Your task to perform on an android device: open chrome and create a bookmark for the current page Image 0: 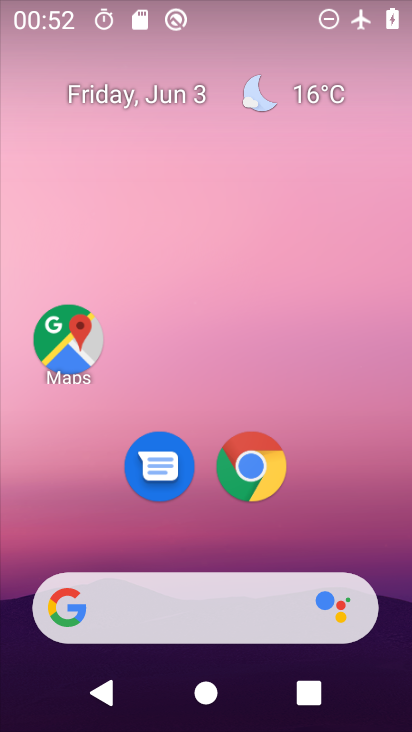
Step 0: click (260, 465)
Your task to perform on an android device: open chrome and create a bookmark for the current page Image 1: 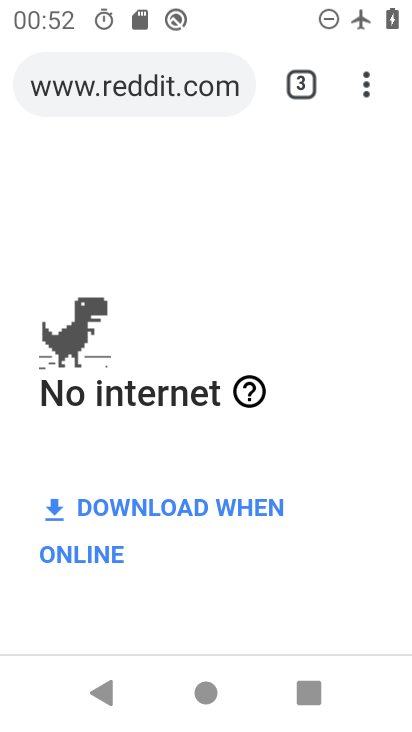
Step 1: click (355, 84)
Your task to perform on an android device: open chrome and create a bookmark for the current page Image 2: 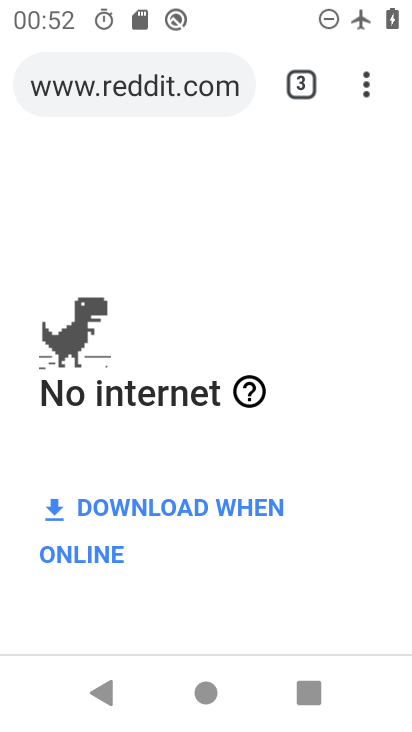
Step 2: click (364, 87)
Your task to perform on an android device: open chrome and create a bookmark for the current page Image 3: 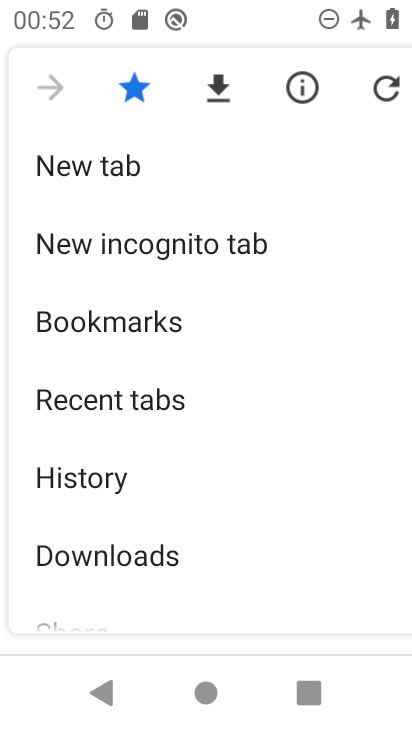
Step 3: task complete